Your task to perform on an android device: open sync settings in chrome Image 0: 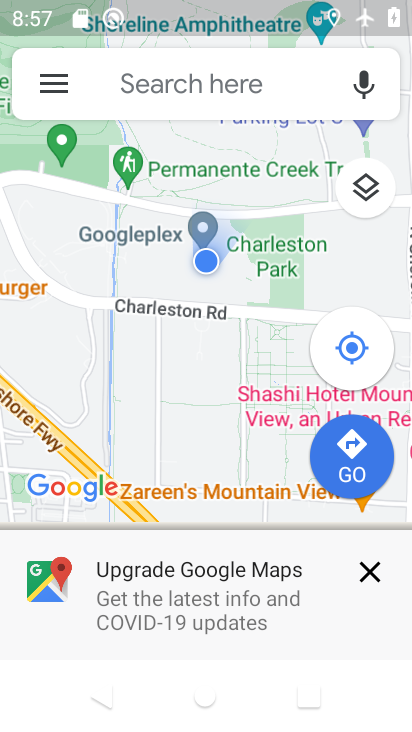
Step 0: press home button
Your task to perform on an android device: open sync settings in chrome Image 1: 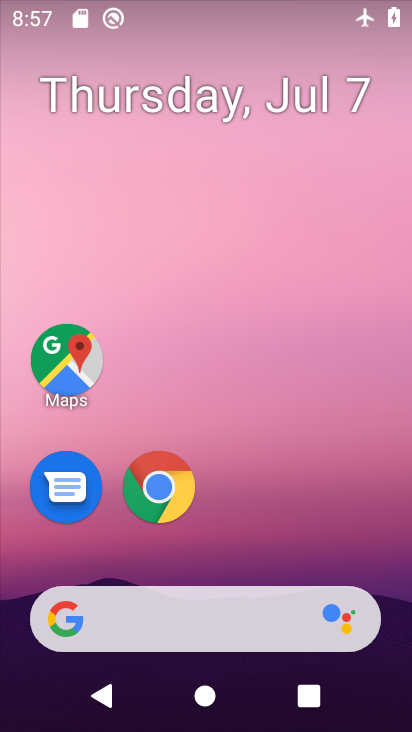
Step 1: drag from (367, 513) to (353, 149)
Your task to perform on an android device: open sync settings in chrome Image 2: 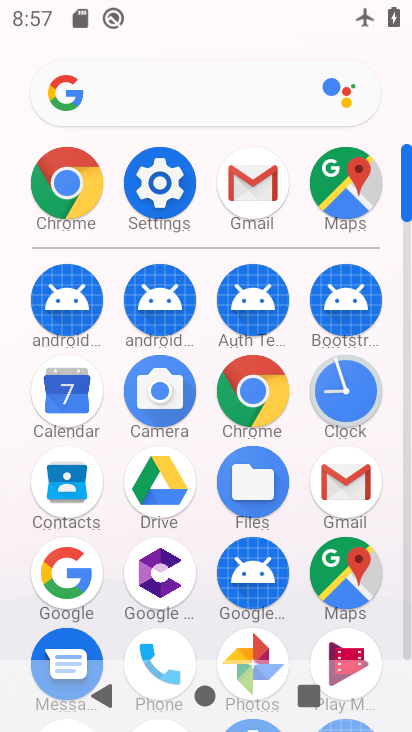
Step 2: click (266, 388)
Your task to perform on an android device: open sync settings in chrome Image 3: 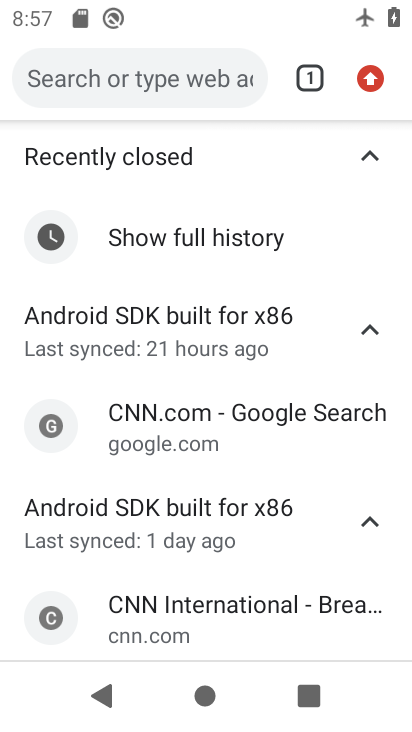
Step 3: click (370, 84)
Your task to perform on an android device: open sync settings in chrome Image 4: 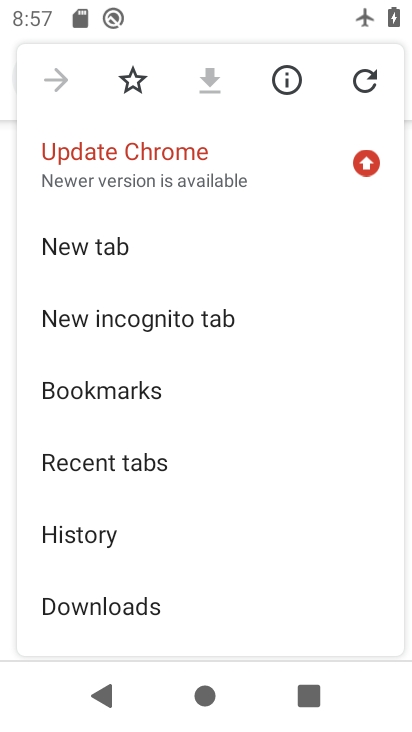
Step 4: drag from (335, 403) to (341, 308)
Your task to perform on an android device: open sync settings in chrome Image 5: 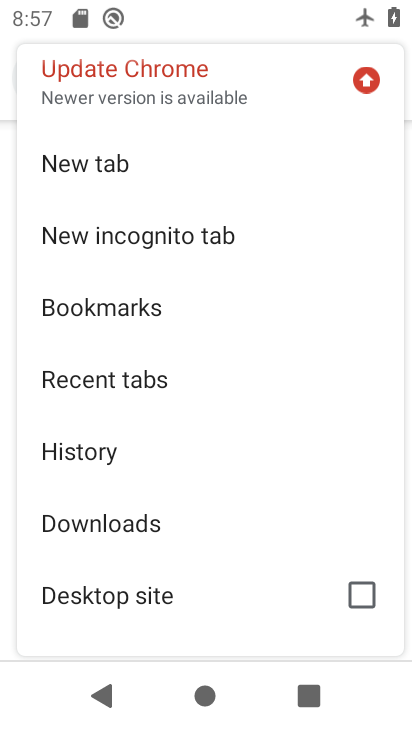
Step 5: drag from (342, 428) to (342, 240)
Your task to perform on an android device: open sync settings in chrome Image 6: 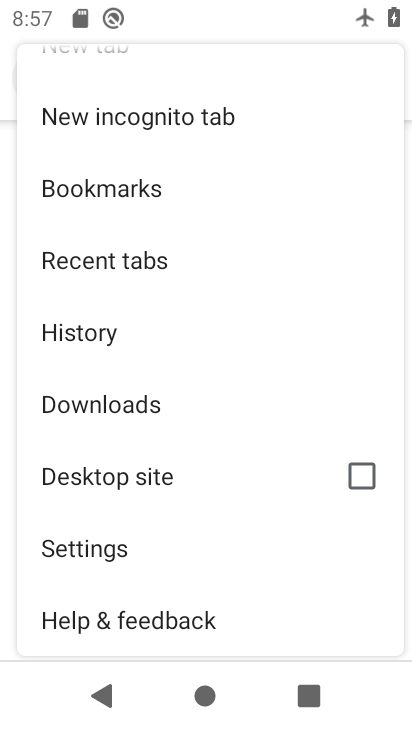
Step 6: click (174, 556)
Your task to perform on an android device: open sync settings in chrome Image 7: 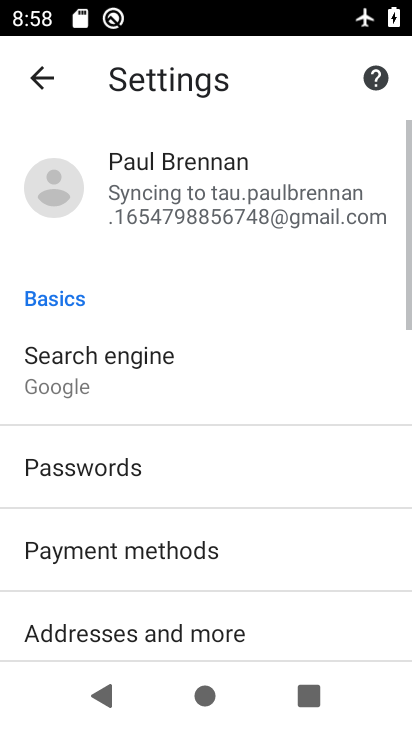
Step 7: drag from (319, 513) to (327, 422)
Your task to perform on an android device: open sync settings in chrome Image 8: 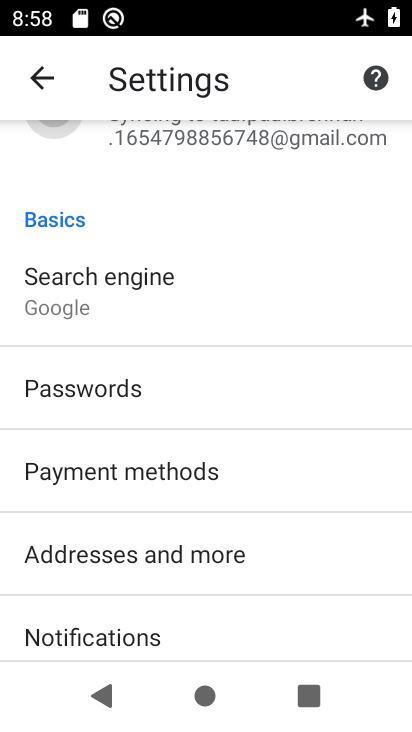
Step 8: drag from (349, 557) to (348, 460)
Your task to perform on an android device: open sync settings in chrome Image 9: 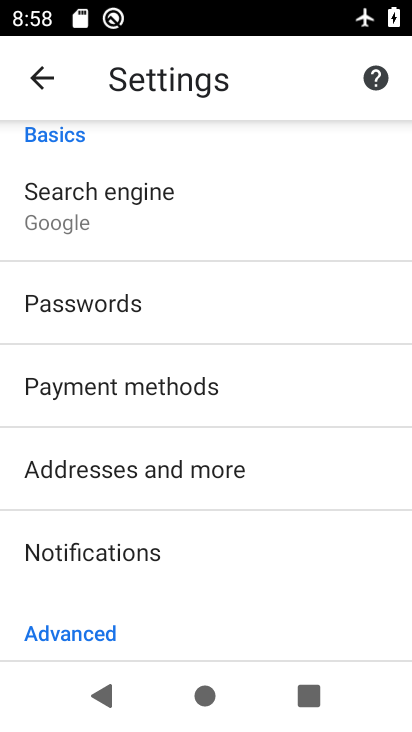
Step 9: drag from (350, 568) to (350, 351)
Your task to perform on an android device: open sync settings in chrome Image 10: 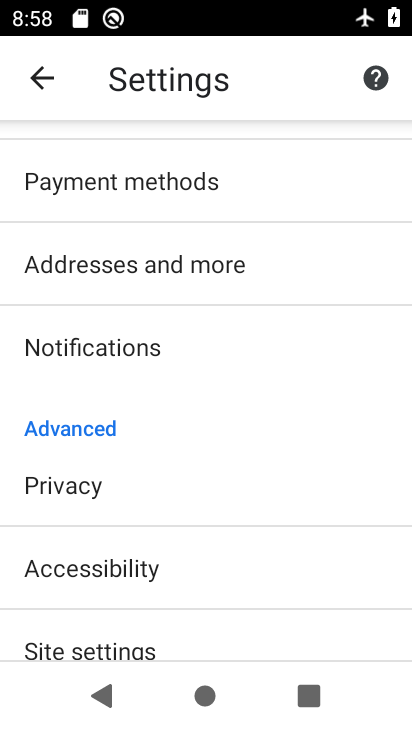
Step 10: drag from (323, 583) to (323, 472)
Your task to perform on an android device: open sync settings in chrome Image 11: 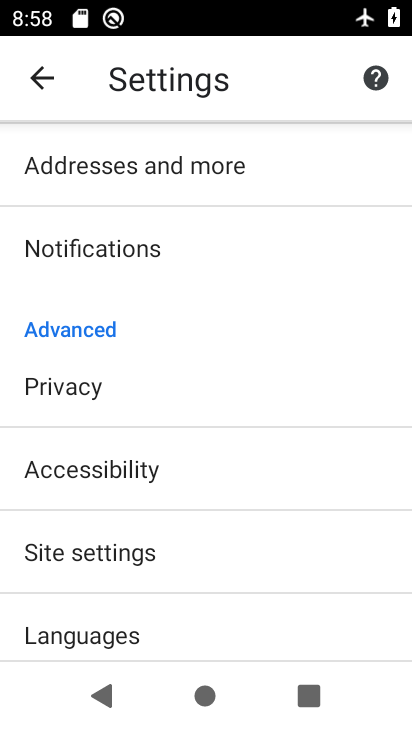
Step 11: drag from (318, 538) to (315, 371)
Your task to perform on an android device: open sync settings in chrome Image 12: 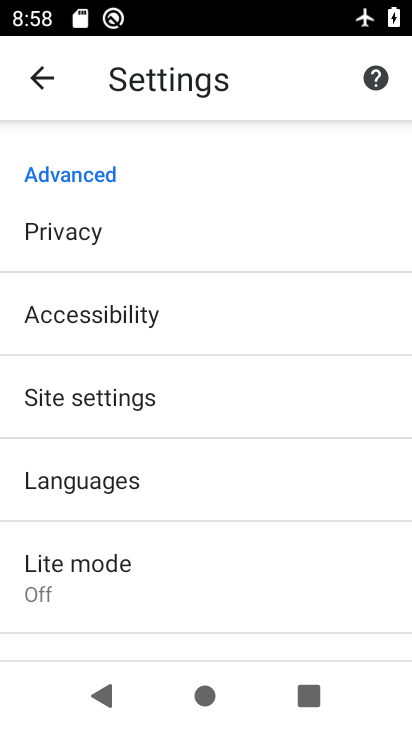
Step 12: drag from (284, 553) to (312, 398)
Your task to perform on an android device: open sync settings in chrome Image 13: 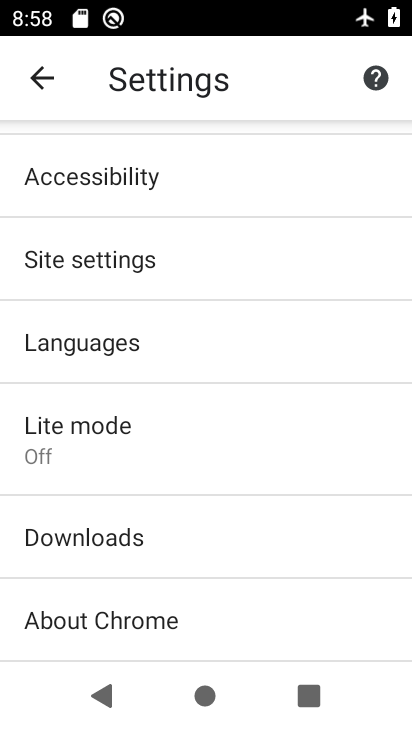
Step 13: click (314, 255)
Your task to perform on an android device: open sync settings in chrome Image 14: 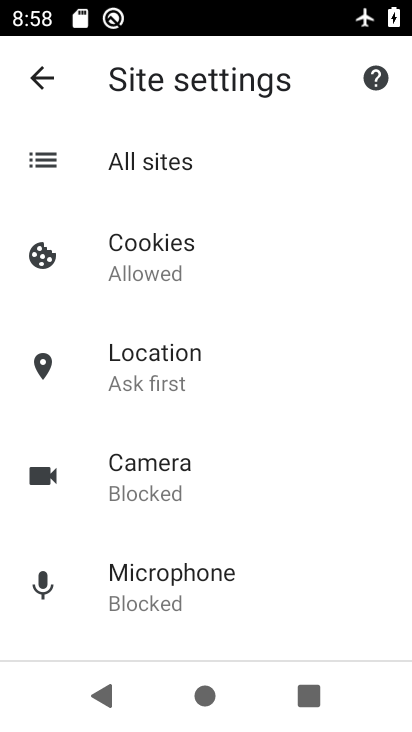
Step 14: drag from (347, 447) to (346, 284)
Your task to perform on an android device: open sync settings in chrome Image 15: 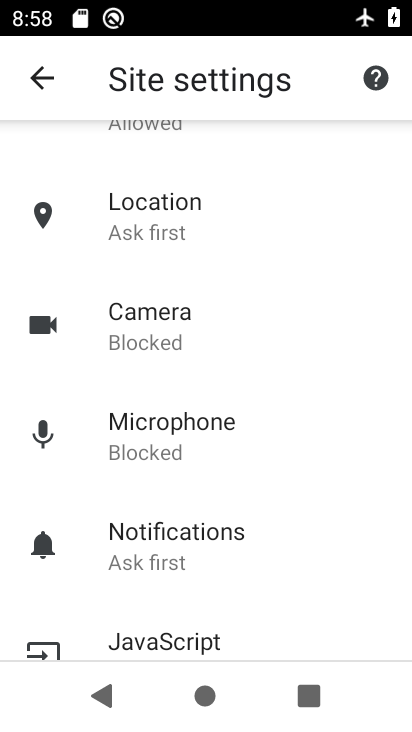
Step 15: drag from (350, 457) to (353, 359)
Your task to perform on an android device: open sync settings in chrome Image 16: 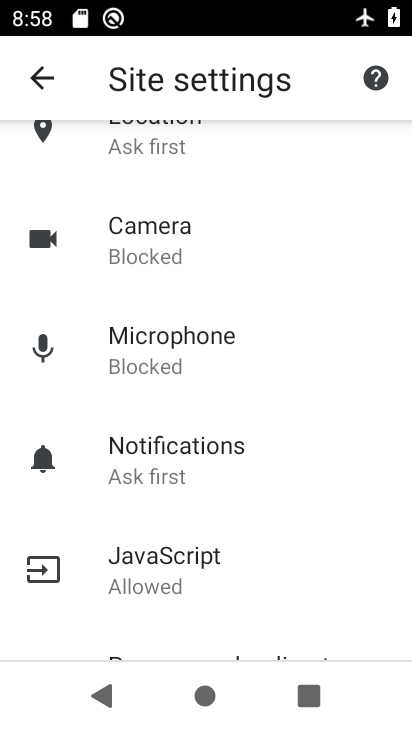
Step 16: drag from (325, 475) to (323, 361)
Your task to perform on an android device: open sync settings in chrome Image 17: 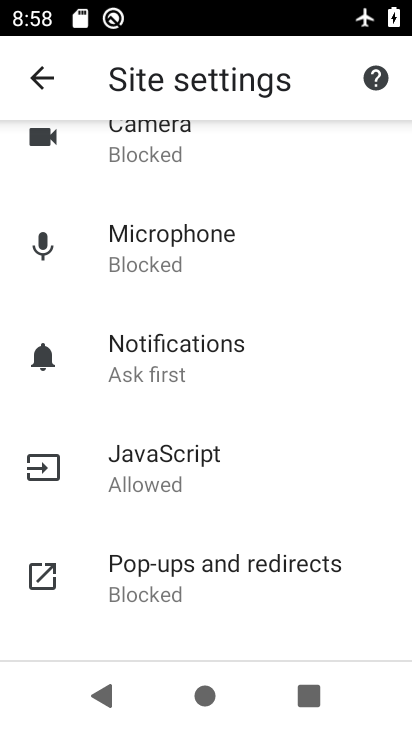
Step 17: drag from (324, 483) to (327, 382)
Your task to perform on an android device: open sync settings in chrome Image 18: 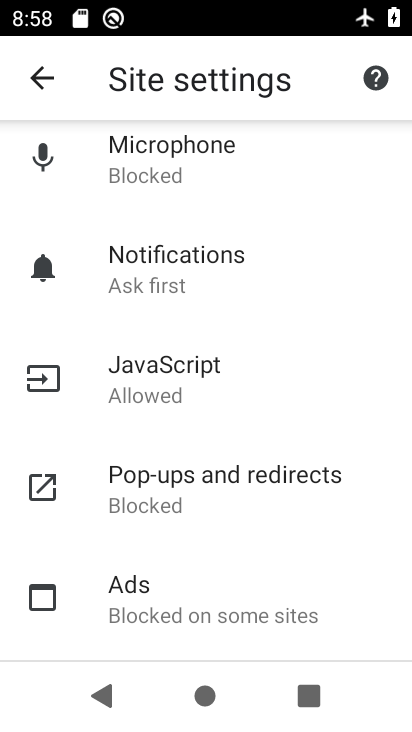
Step 18: drag from (331, 531) to (347, 430)
Your task to perform on an android device: open sync settings in chrome Image 19: 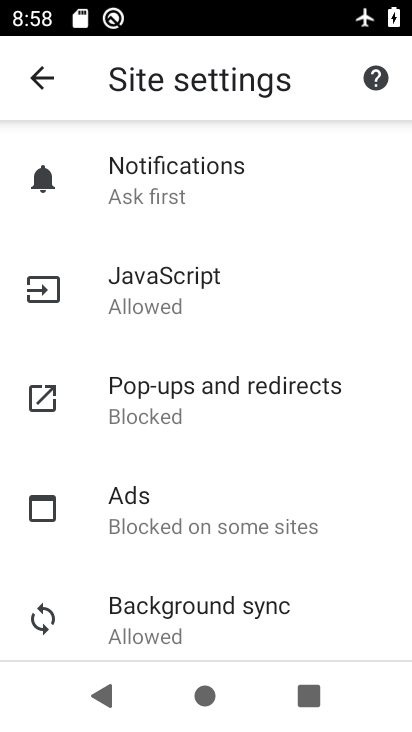
Step 19: drag from (341, 540) to (356, 443)
Your task to perform on an android device: open sync settings in chrome Image 20: 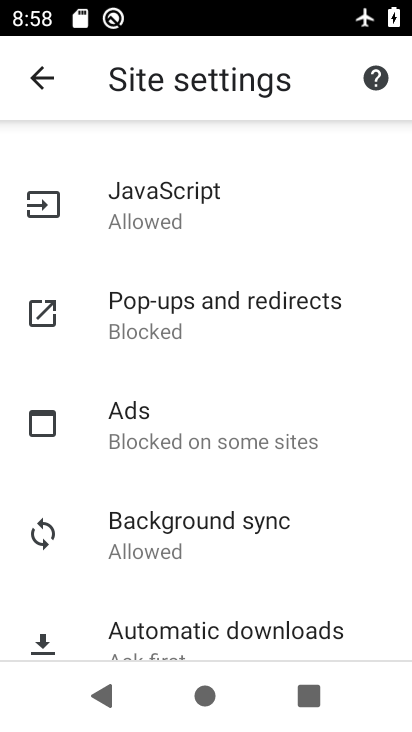
Step 20: drag from (355, 534) to (365, 432)
Your task to perform on an android device: open sync settings in chrome Image 21: 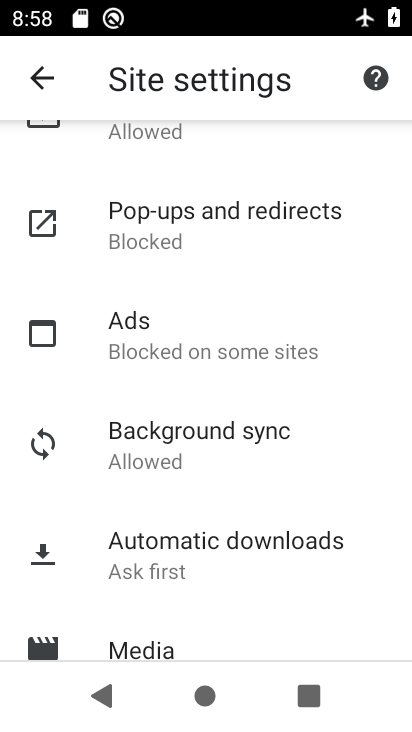
Step 21: drag from (353, 556) to (364, 443)
Your task to perform on an android device: open sync settings in chrome Image 22: 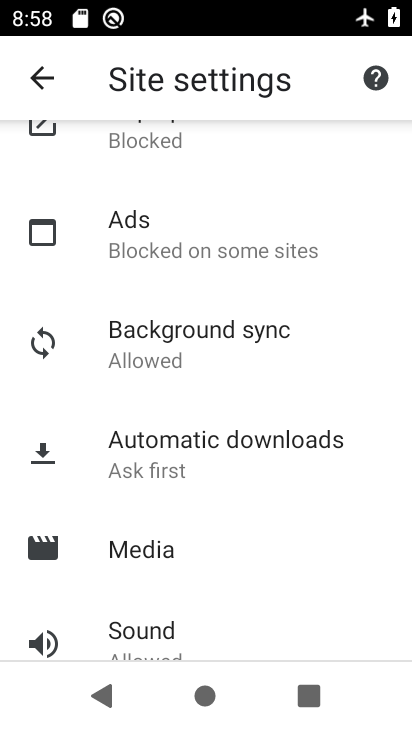
Step 22: click (200, 342)
Your task to perform on an android device: open sync settings in chrome Image 23: 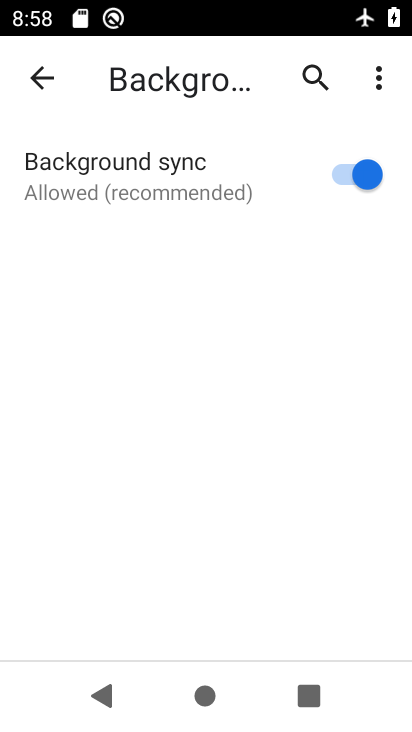
Step 23: task complete